Your task to perform on an android device: allow cookies in the chrome app Image 0: 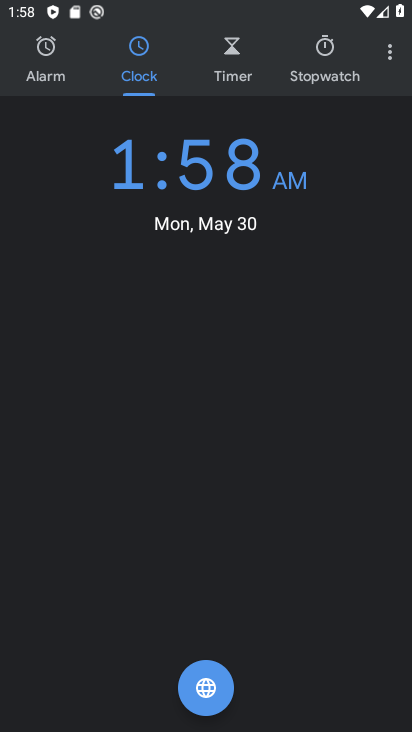
Step 0: press home button
Your task to perform on an android device: allow cookies in the chrome app Image 1: 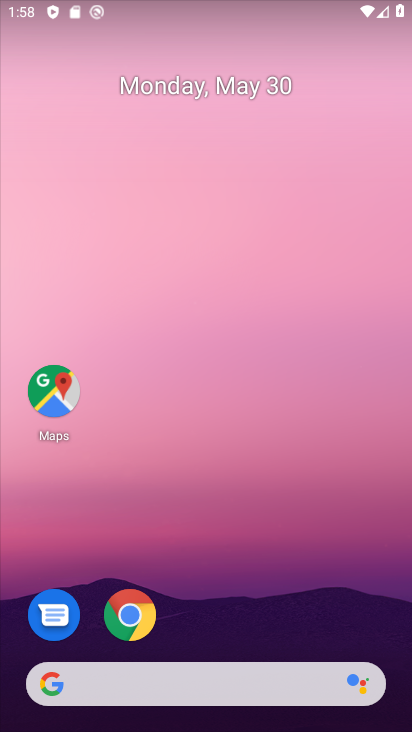
Step 1: click (120, 630)
Your task to perform on an android device: allow cookies in the chrome app Image 2: 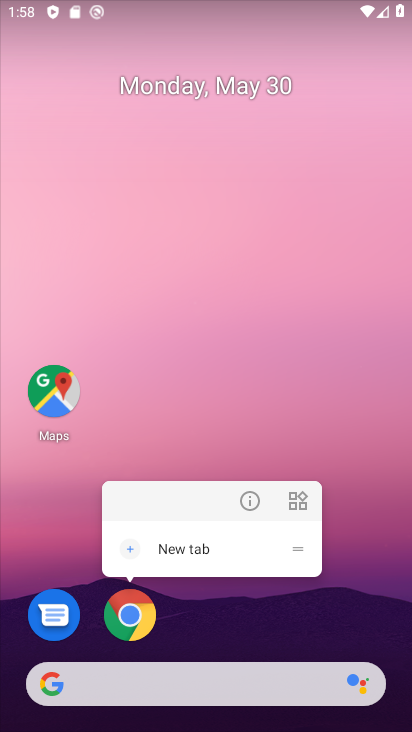
Step 2: click (125, 627)
Your task to perform on an android device: allow cookies in the chrome app Image 3: 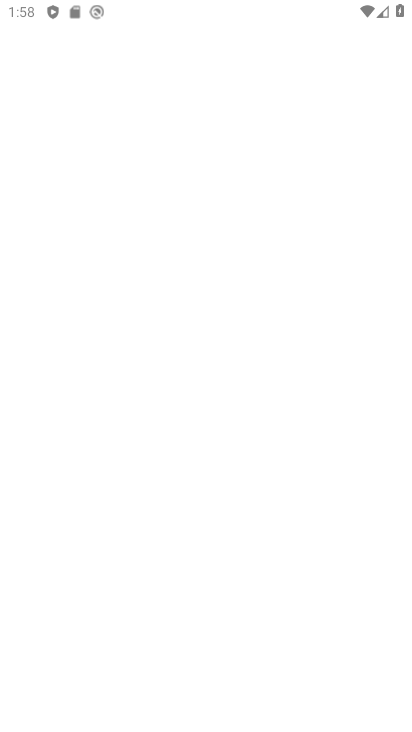
Step 3: click (132, 620)
Your task to perform on an android device: allow cookies in the chrome app Image 4: 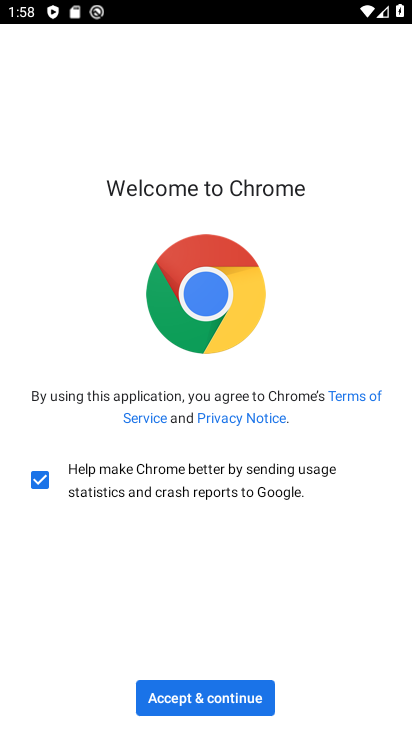
Step 4: click (233, 694)
Your task to perform on an android device: allow cookies in the chrome app Image 5: 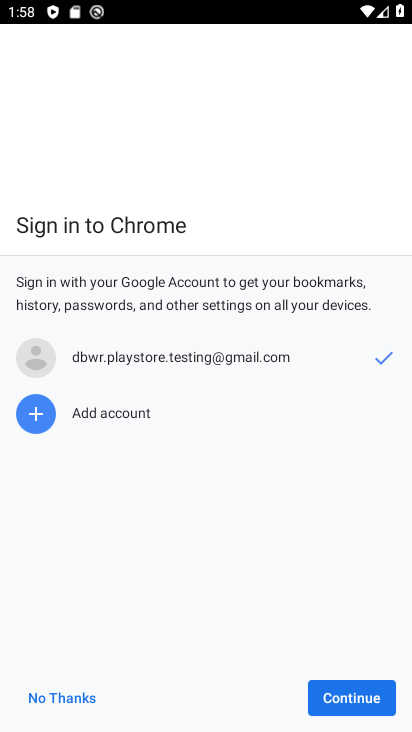
Step 5: click (365, 703)
Your task to perform on an android device: allow cookies in the chrome app Image 6: 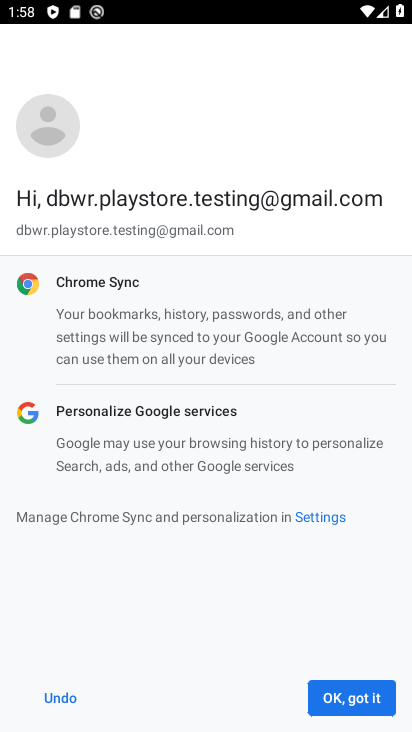
Step 6: click (365, 703)
Your task to perform on an android device: allow cookies in the chrome app Image 7: 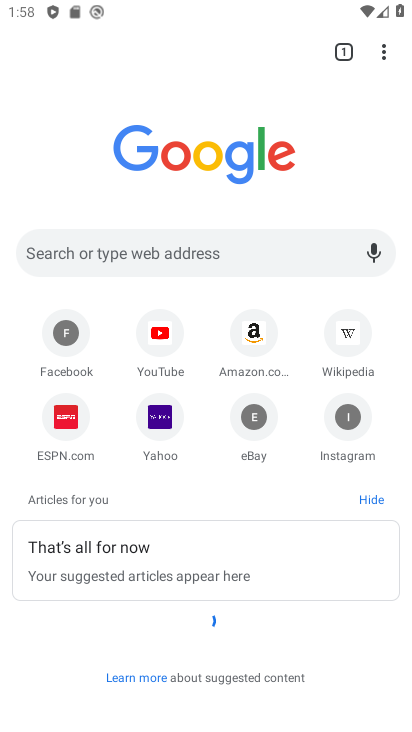
Step 7: drag from (390, 57) to (317, 436)
Your task to perform on an android device: allow cookies in the chrome app Image 8: 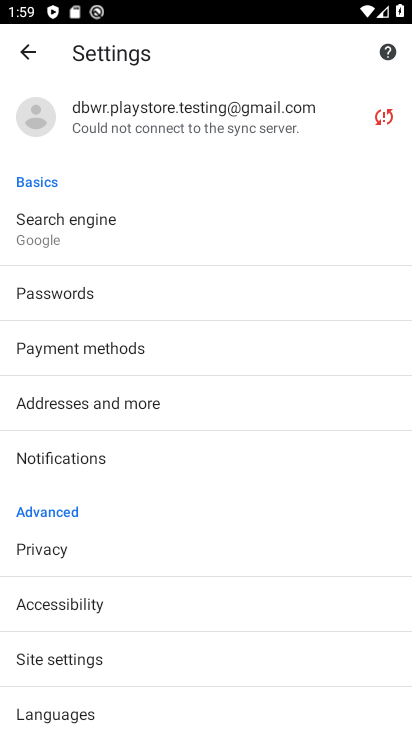
Step 8: drag from (128, 637) to (212, 404)
Your task to perform on an android device: allow cookies in the chrome app Image 9: 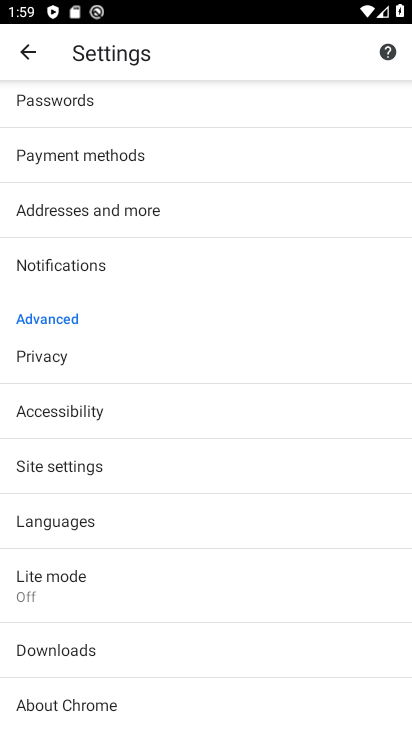
Step 9: click (150, 477)
Your task to perform on an android device: allow cookies in the chrome app Image 10: 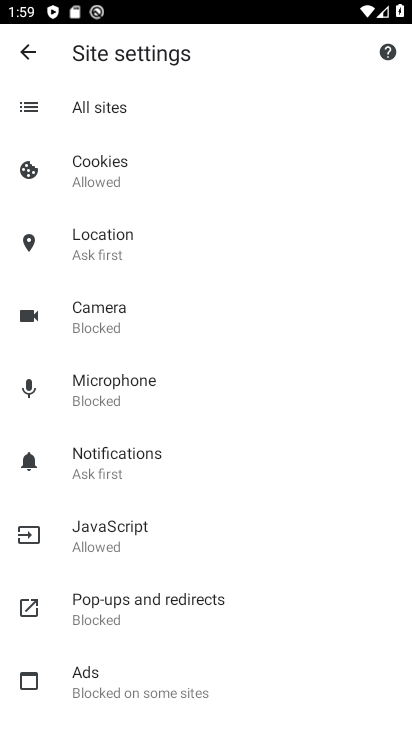
Step 10: click (208, 171)
Your task to perform on an android device: allow cookies in the chrome app Image 11: 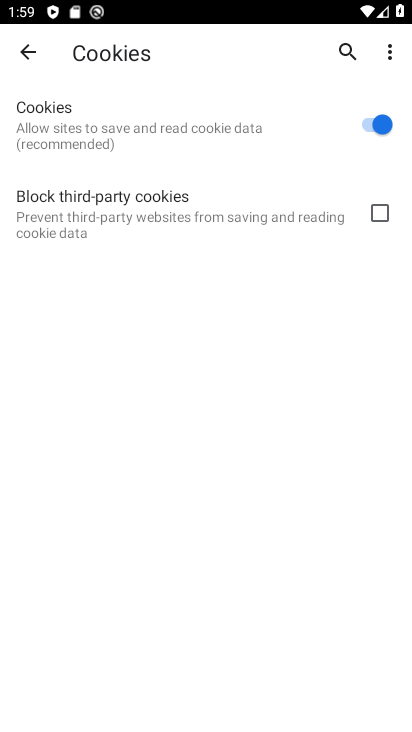
Step 11: task complete